Your task to perform on an android device: change the clock display to analog Image 0: 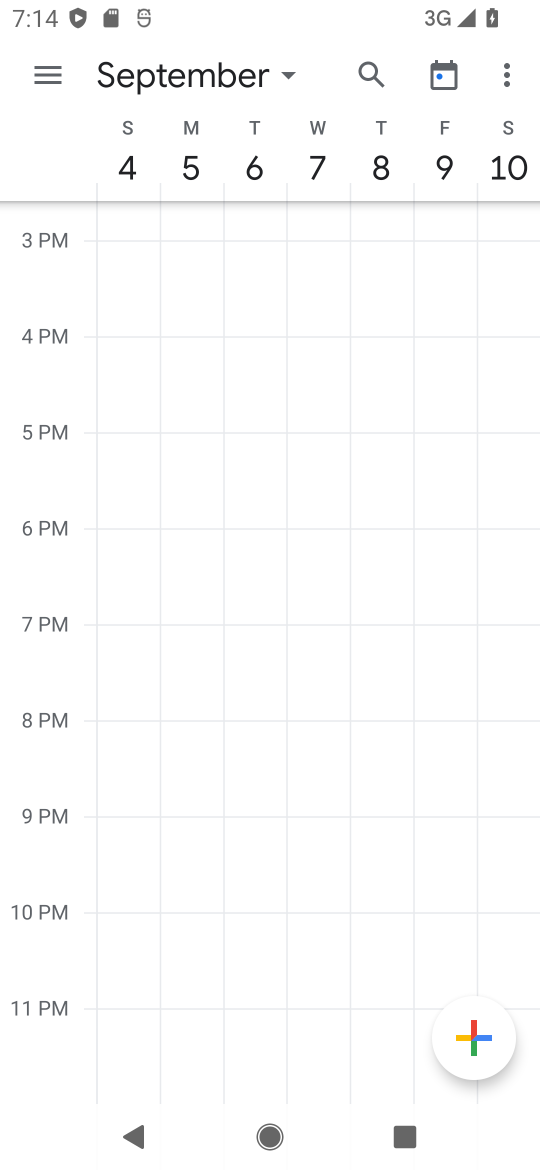
Step 0: press home button
Your task to perform on an android device: change the clock display to analog Image 1: 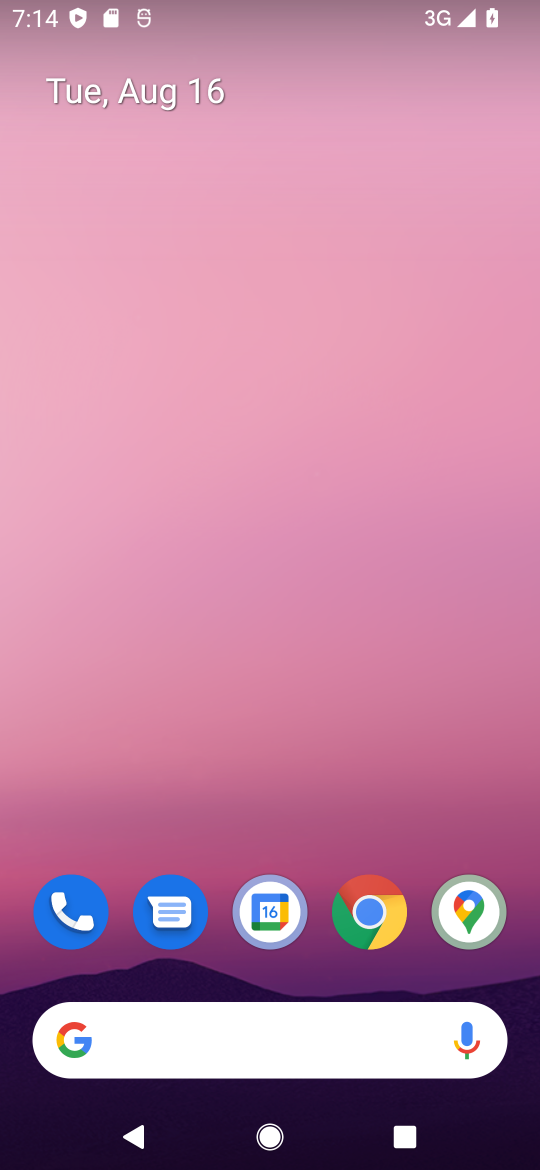
Step 1: drag from (427, 966) to (399, 212)
Your task to perform on an android device: change the clock display to analog Image 2: 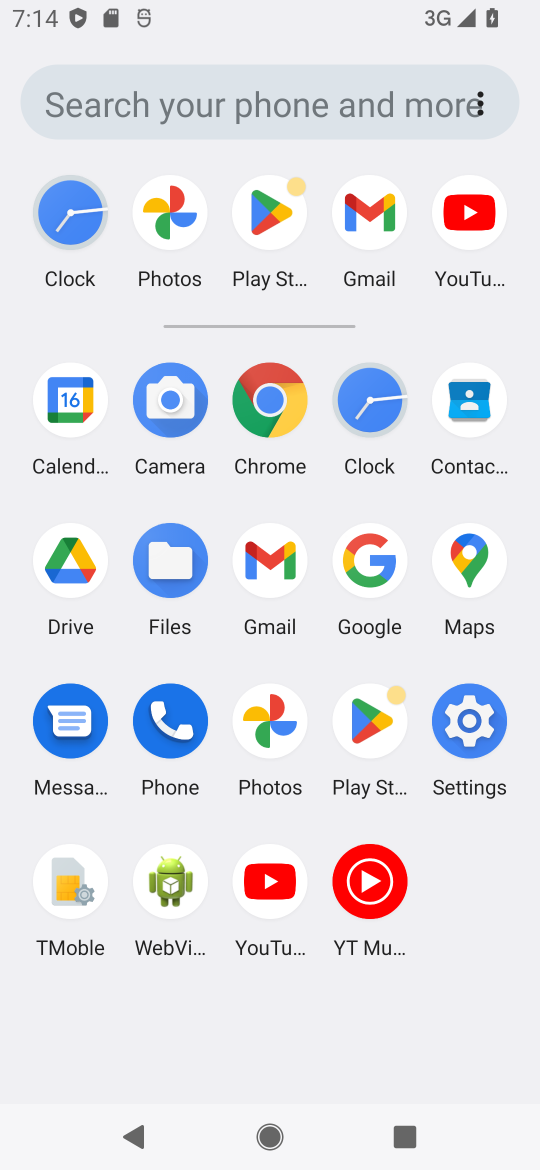
Step 2: click (372, 403)
Your task to perform on an android device: change the clock display to analog Image 3: 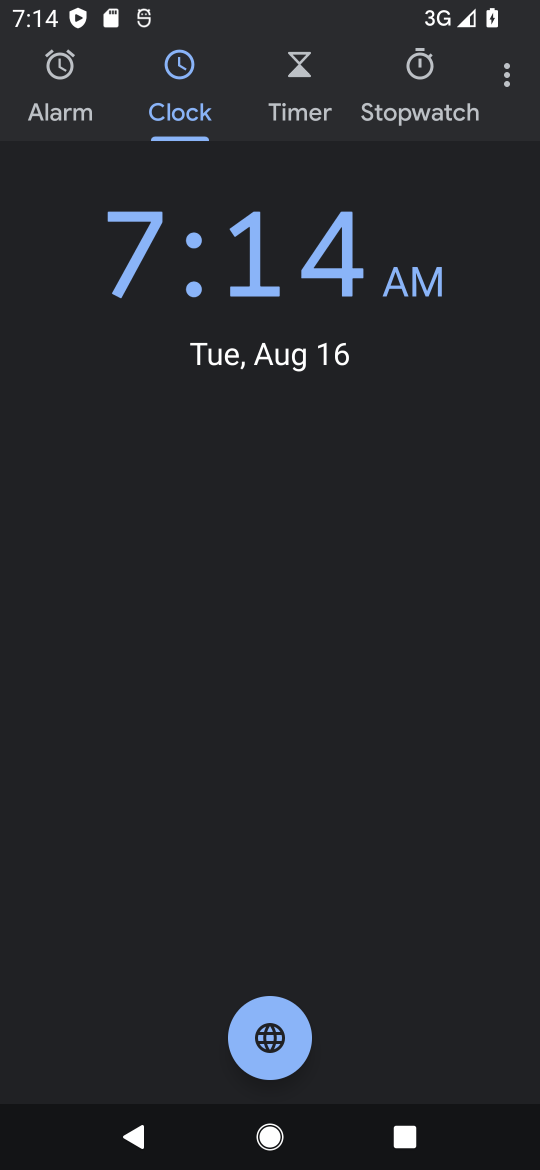
Step 3: click (504, 89)
Your task to perform on an android device: change the clock display to analog Image 4: 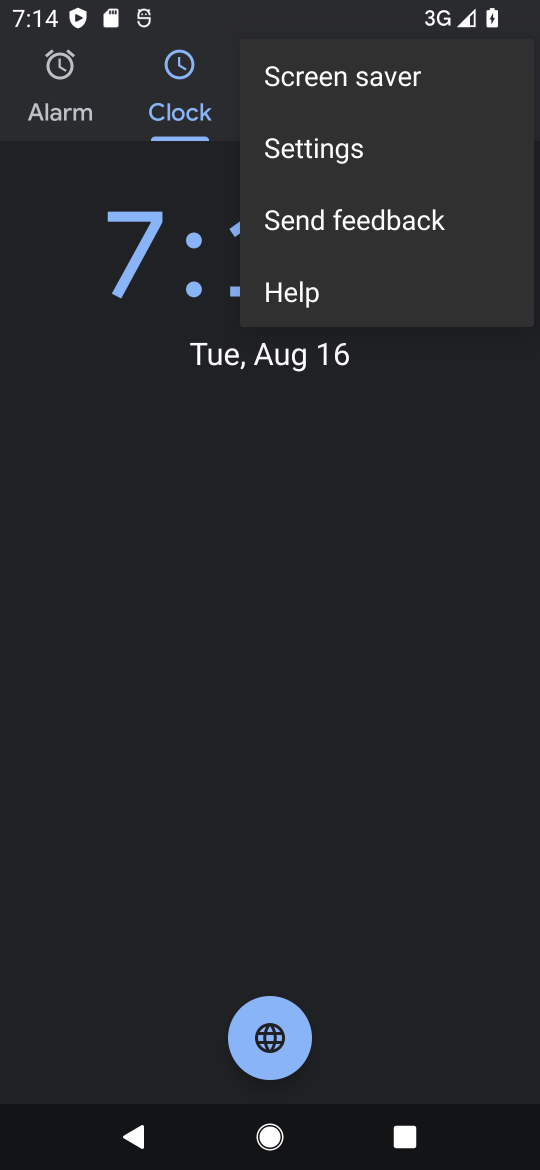
Step 4: click (312, 140)
Your task to perform on an android device: change the clock display to analog Image 5: 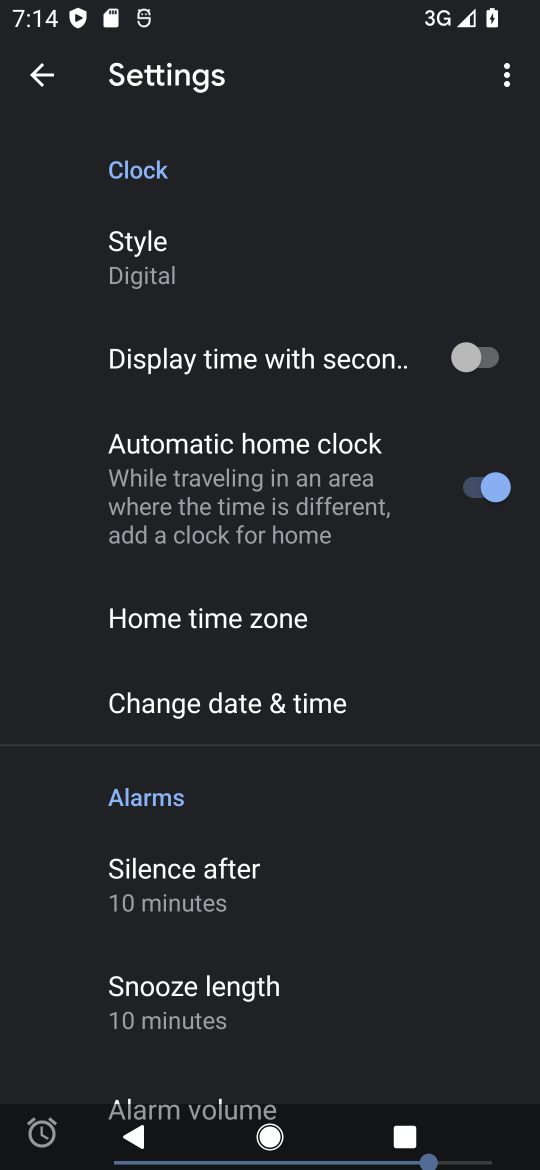
Step 5: click (148, 265)
Your task to perform on an android device: change the clock display to analog Image 6: 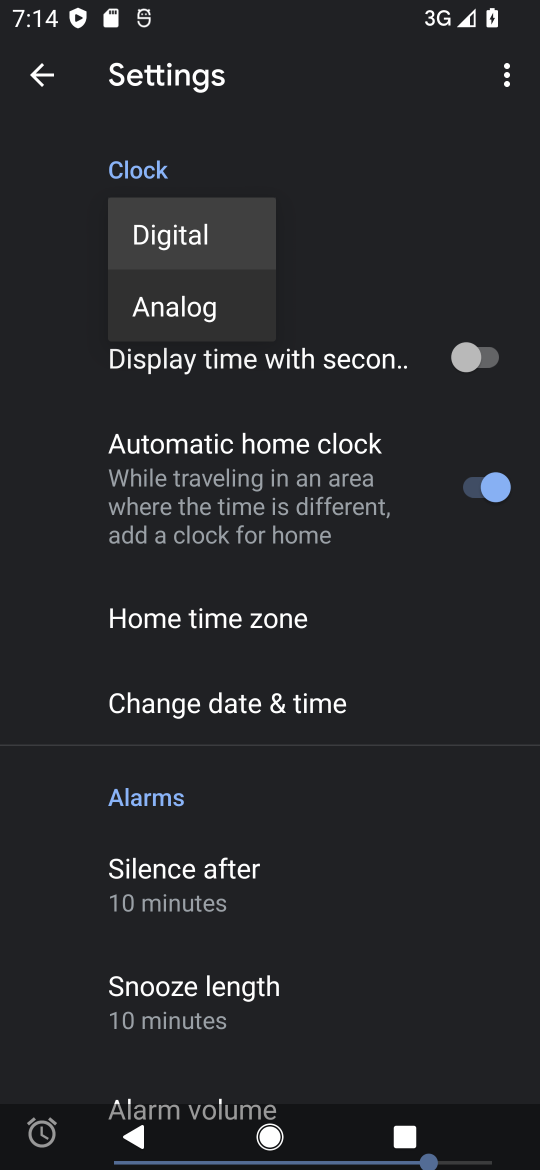
Step 6: click (190, 308)
Your task to perform on an android device: change the clock display to analog Image 7: 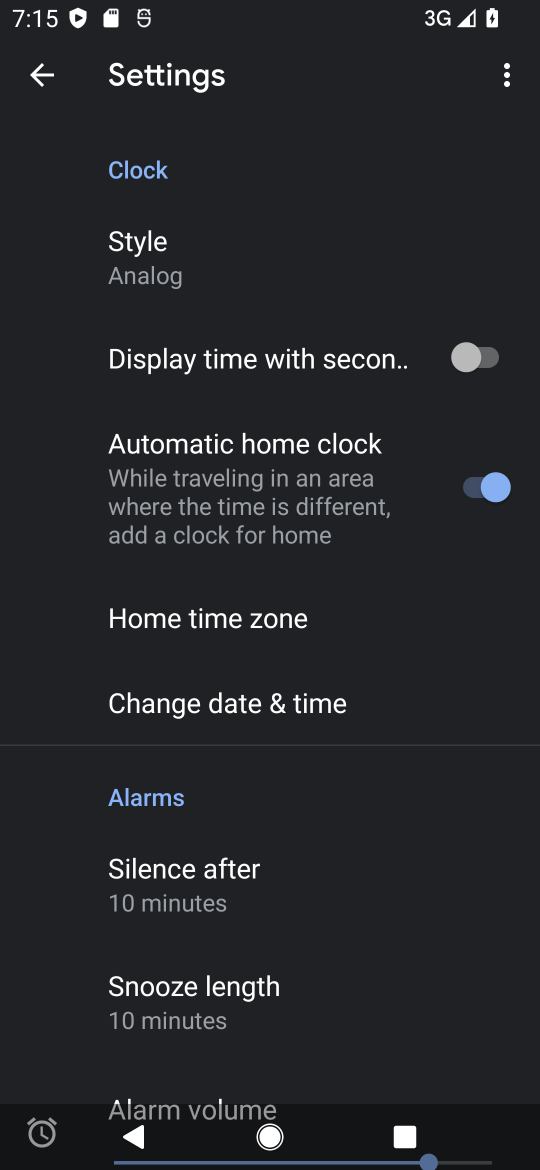
Step 7: task complete